Your task to perform on an android device: Check the weather Image 0: 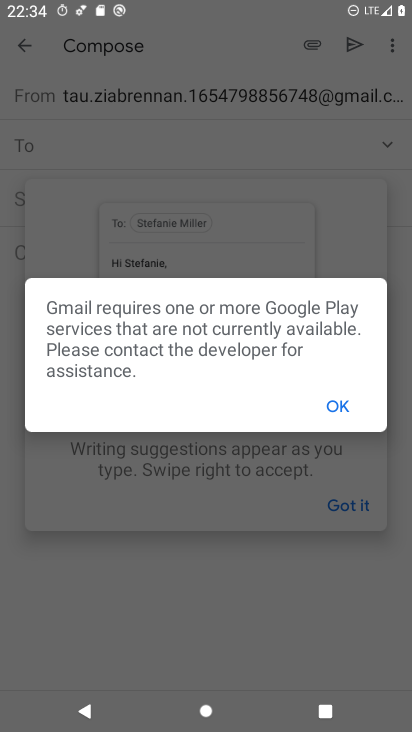
Step 0: press home button
Your task to perform on an android device: Check the weather Image 1: 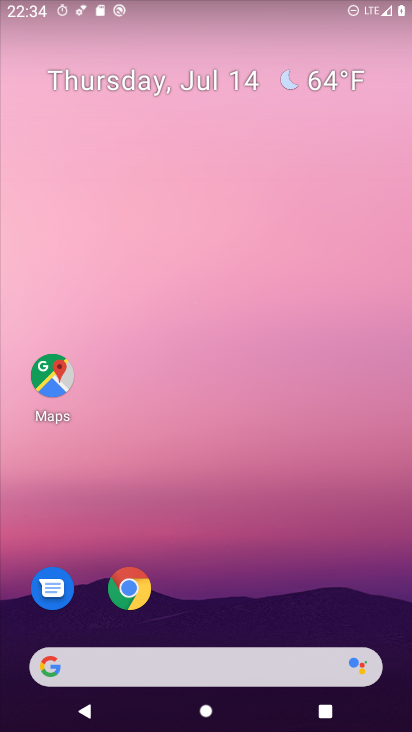
Step 1: click (213, 665)
Your task to perform on an android device: Check the weather Image 2: 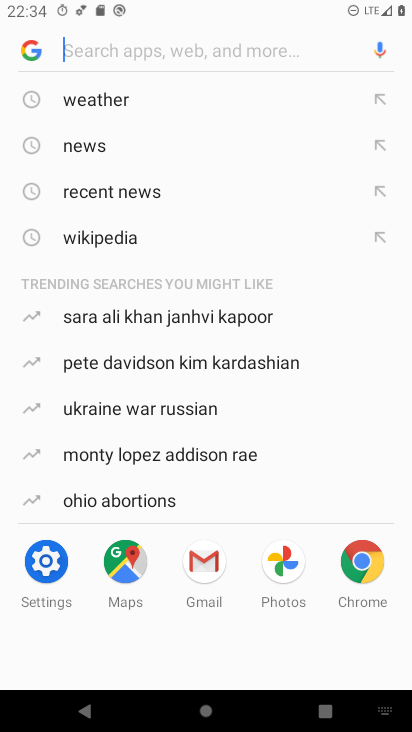
Step 2: click (152, 102)
Your task to perform on an android device: Check the weather Image 3: 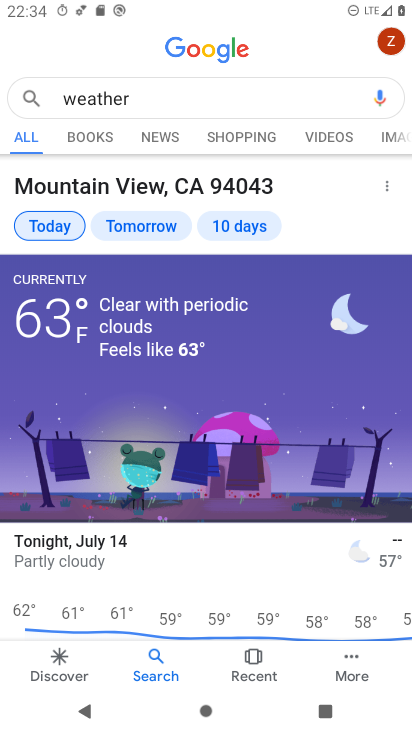
Step 3: task complete